Your task to perform on an android device: turn off location Image 0: 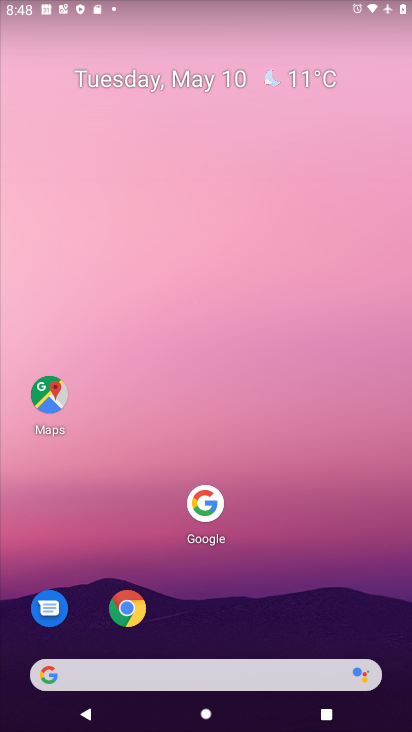
Step 0: press home button
Your task to perform on an android device: turn off location Image 1: 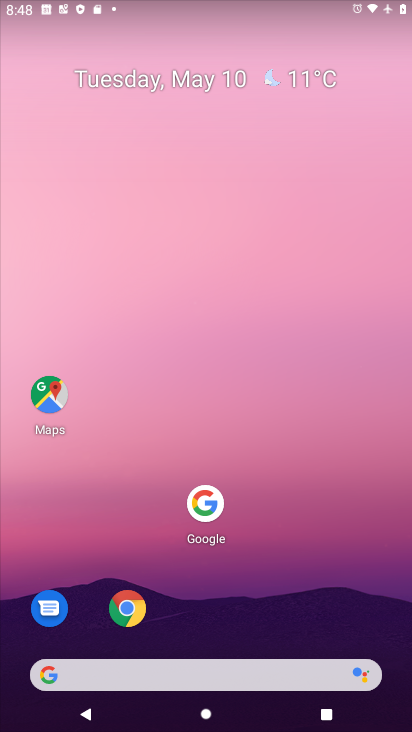
Step 1: drag from (158, 677) to (313, 83)
Your task to perform on an android device: turn off location Image 2: 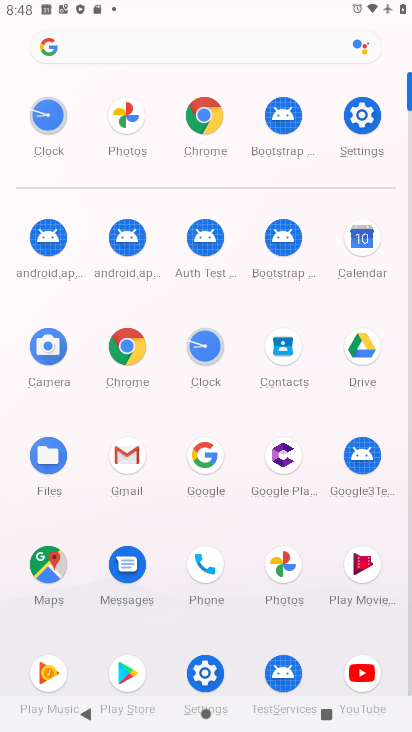
Step 2: click (363, 128)
Your task to perform on an android device: turn off location Image 3: 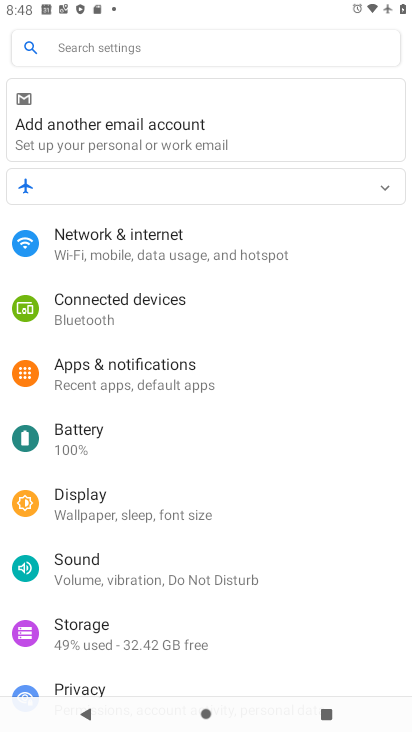
Step 3: drag from (134, 574) to (246, 211)
Your task to perform on an android device: turn off location Image 4: 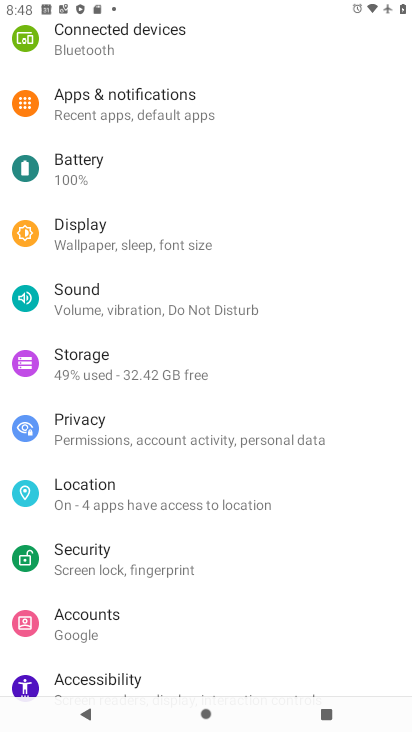
Step 4: click (146, 513)
Your task to perform on an android device: turn off location Image 5: 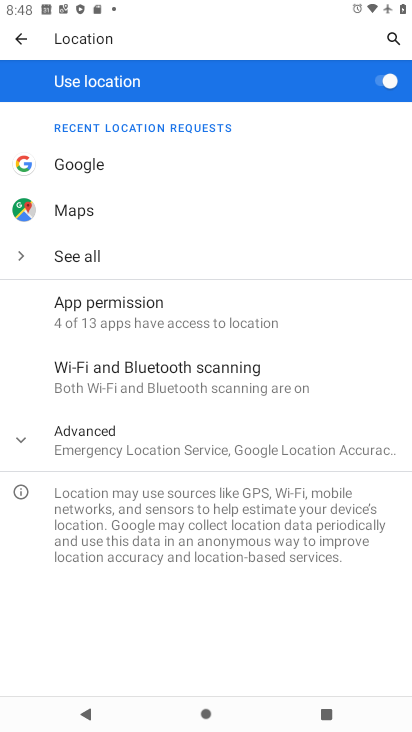
Step 5: click (377, 76)
Your task to perform on an android device: turn off location Image 6: 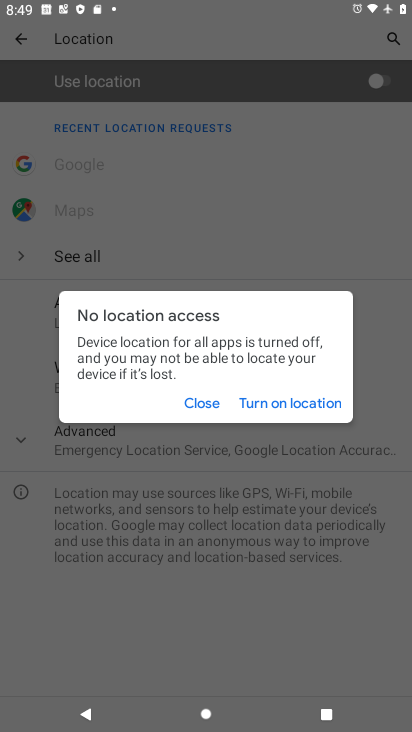
Step 6: task complete